Your task to perform on an android device: clear all cookies in the chrome app Image 0: 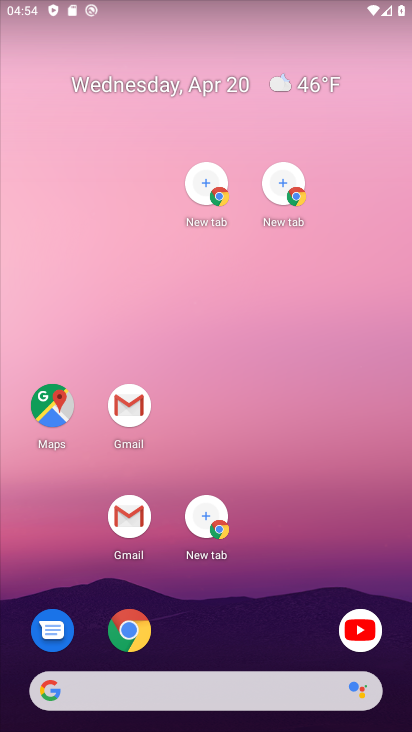
Step 0: drag from (139, 609) to (99, 163)
Your task to perform on an android device: clear all cookies in the chrome app Image 1: 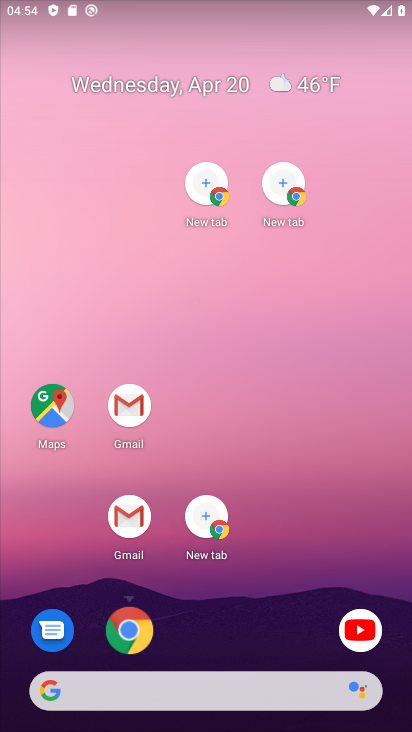
Step 1: drag from (223, 380) to (210, 90)
Your task to perform on an android device: clear all cookies in the chrome app Image 2: 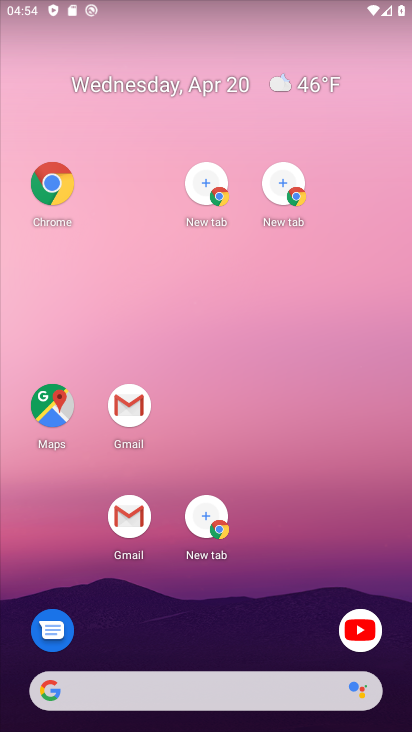
Step 2: drag from (250, 677) to (120, 26)
Your task to perform on an android device: clear all cookies in the chrome app Image 3: 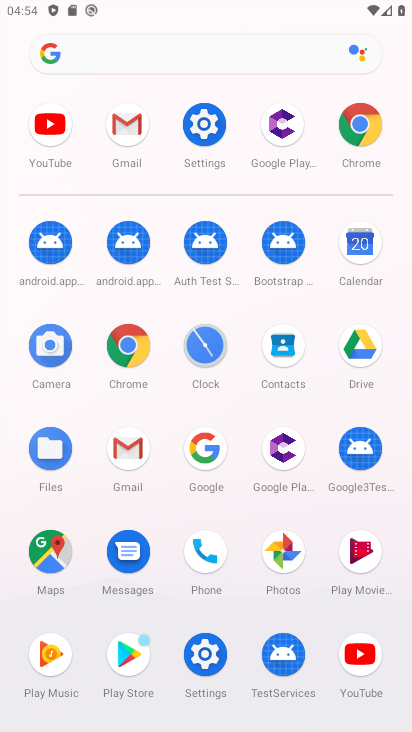
Step 3: drag from (244, 580) to (109, 249)
Your task to perform on an android device: clear all cookies in the chrome app Image 4: 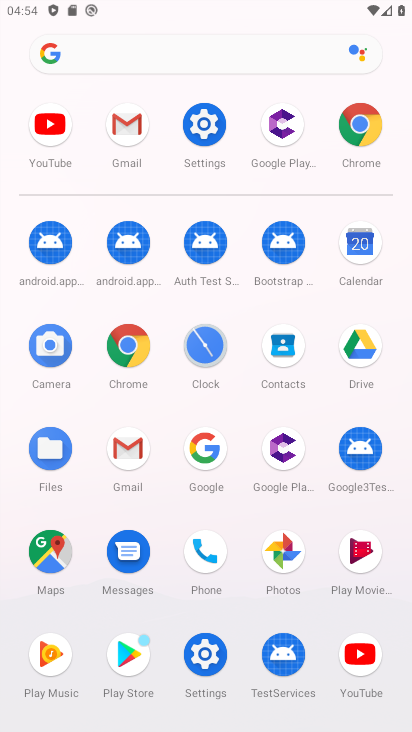
Step 4: click (136, 119)
Your task to perform on an android device: clear all cookies in the chrome app Image 5: 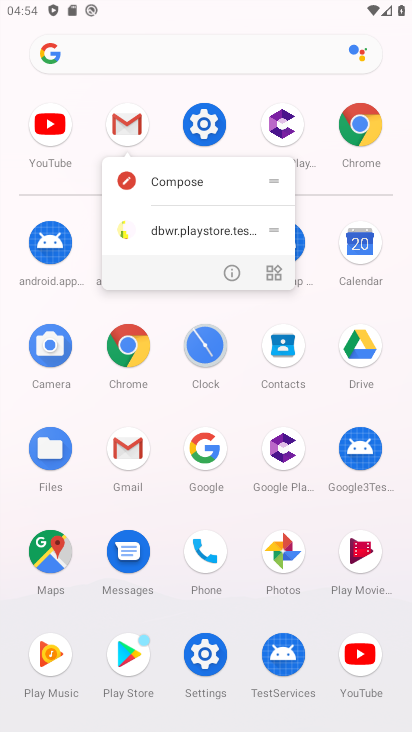
Step 5: click (124, 113)
Your task to perform on an android device: clear all cookies in the chrome app Image 6: 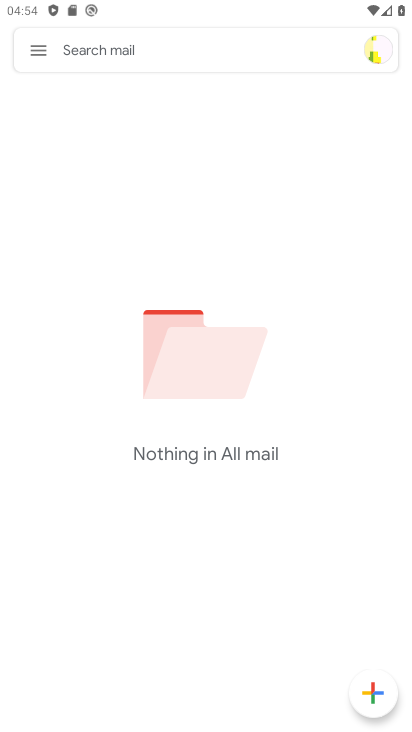
Step 6: click (44, 53)
Your task to perform on an android device: clear all cookies in the chrome app Image 7: 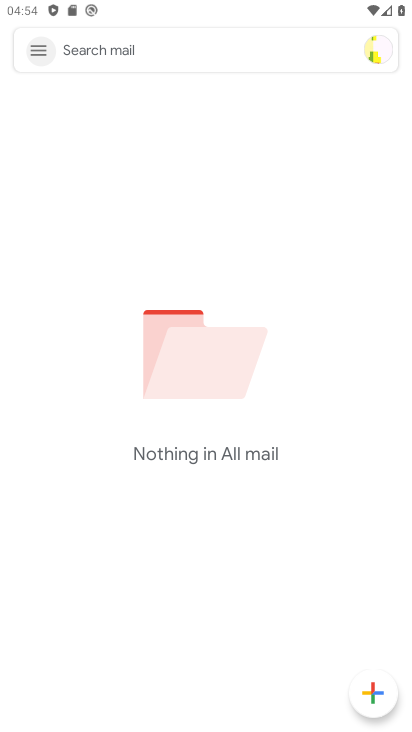
Step 7: drag from (44, 53) to (38, 102)
Your task to perform on an android device: clear all cookies in the chrome app Image 8: 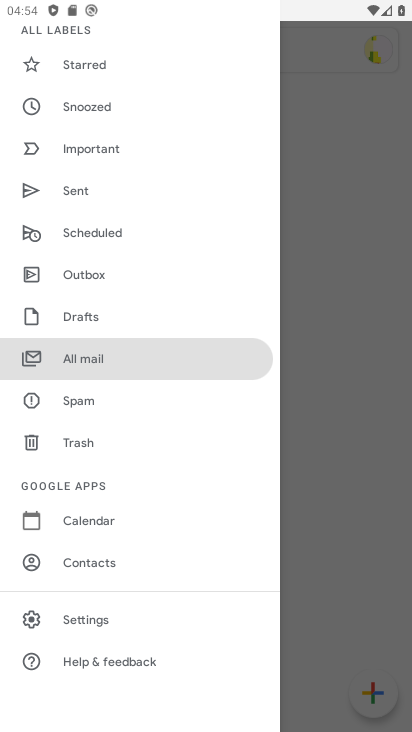
Step 8: drag from (313, 590) to (333, 437)
Your task to perform on an android device: clear all cookies in the chrome app Image 9: 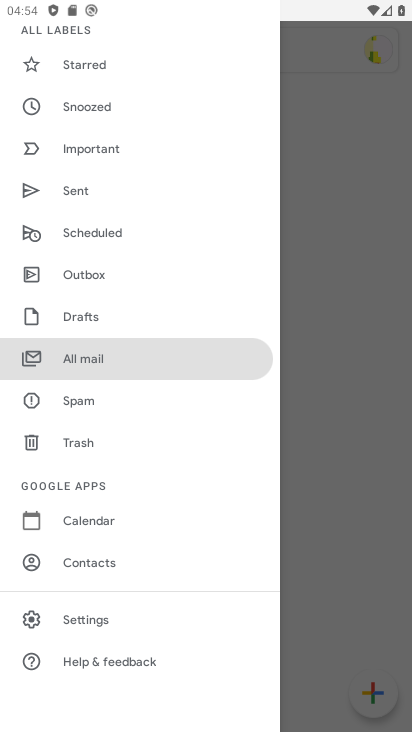
Step 9: press home button
Your task to perform on an android device: clear all cookies in the chrome app Image 10: 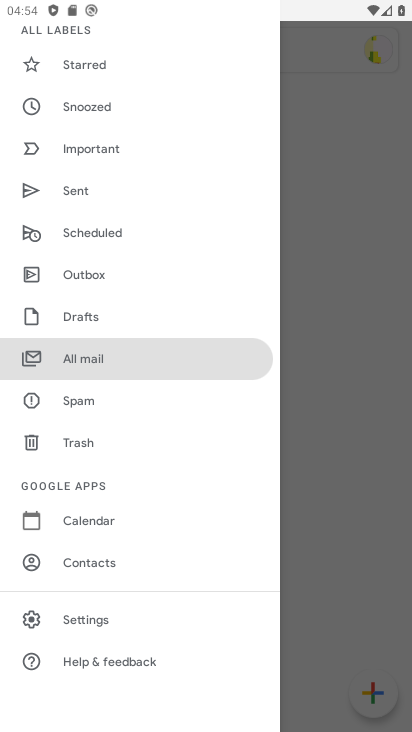
Step 10: press home button
Your task to perform on an android device: clear all cookies in the chrome app Image 11: 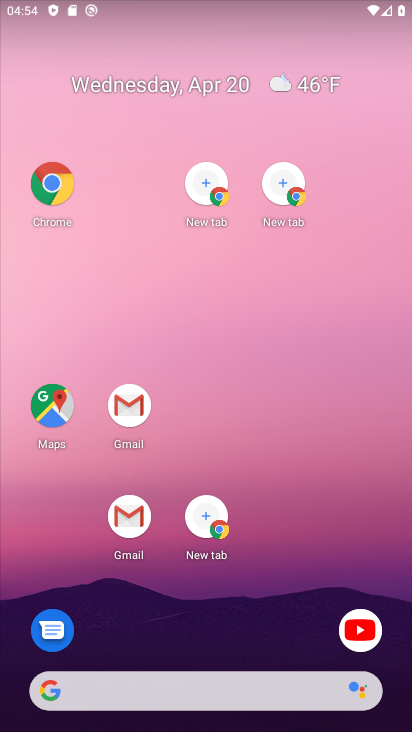
Step 11: drag from (287, 633) to (160, 7)
Your task to perform on an android device: clear all cookies in the chrome app Image 12: 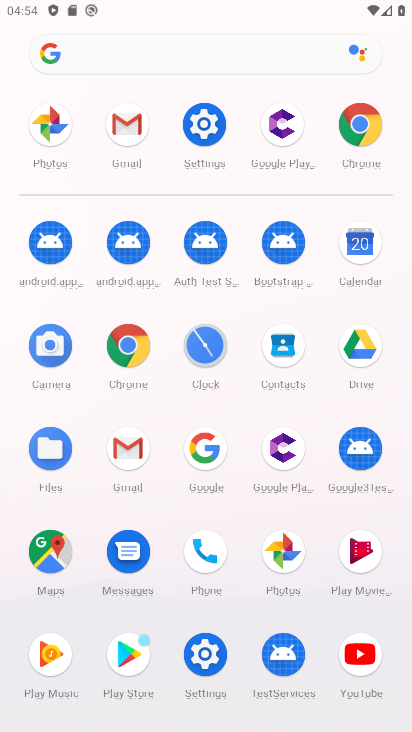
Step 12: click (354, 123)
Your task to perform on an android device: clear all cookies in the chrome app Image 13: 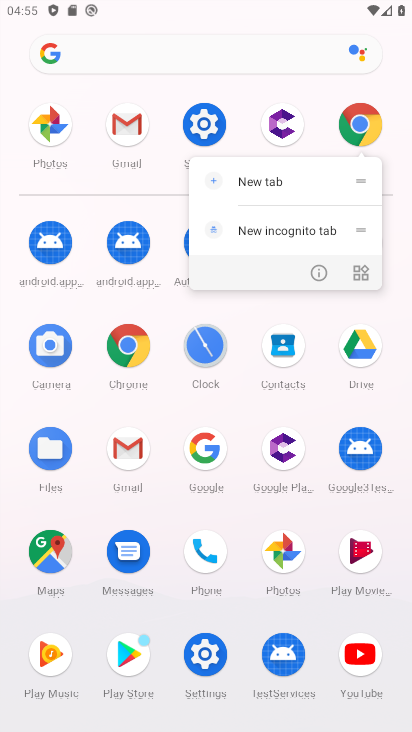
Step 13: click (371, 147)
Your task to perform on an android device: clear all cookies in the chrome app Image 14: 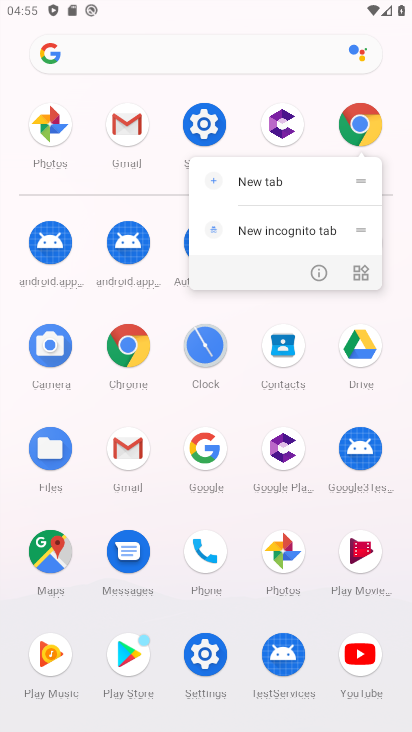
Step 14: click (347, 109)
Your task to perform on an android device: clear all cookies in the chrome app Image 15: 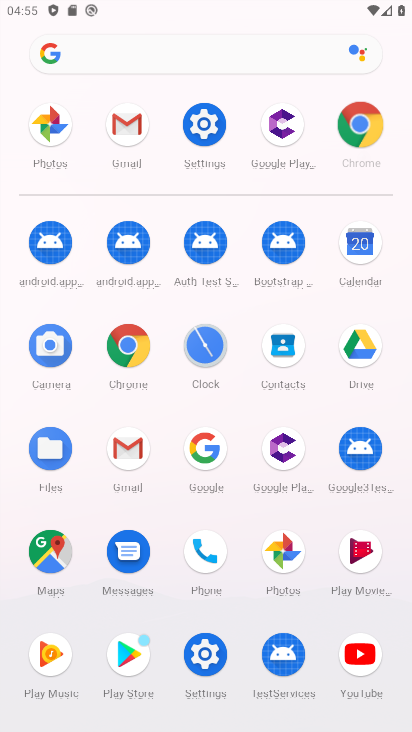
Step 15: click (352, 109)
Your task to perform on an android device: clear all cookies in the chrome app Image 16: 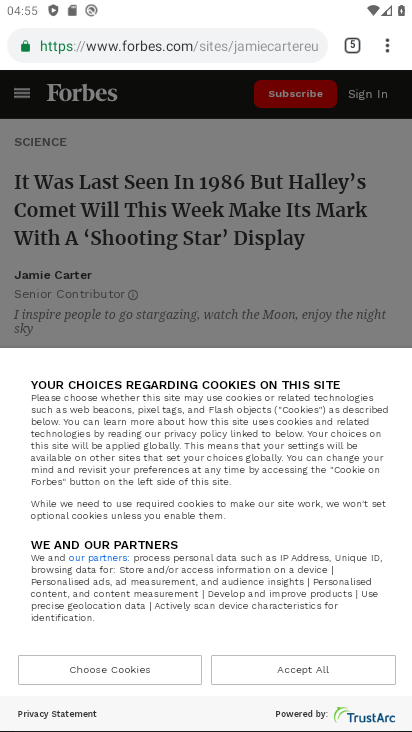
Step 16: drag from (385, 44) to (226, 592)
Your task to perform on an android device: clear all cookies in the chrome app Image 17: 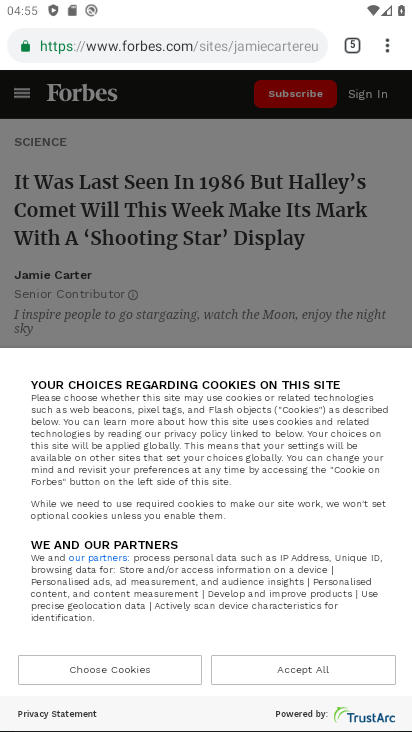
Step 17: click (226, 592)
Your task to perform on an android device: clear all cookies in the chrome app Image 18: 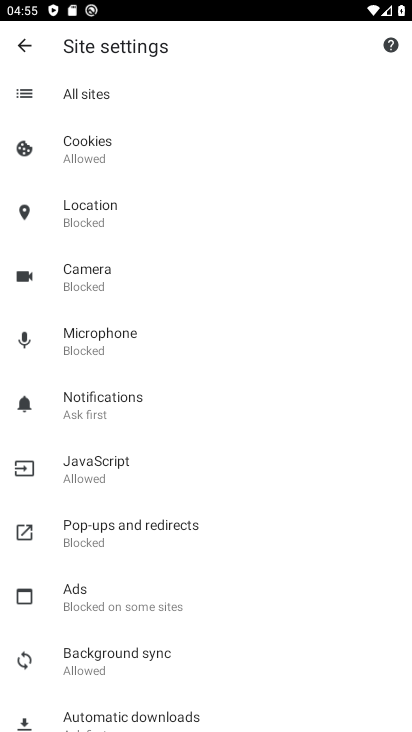
Step 18: click (84, 143)
Your task to perform on an android device: clear all cookies in the chrome app Image 19: 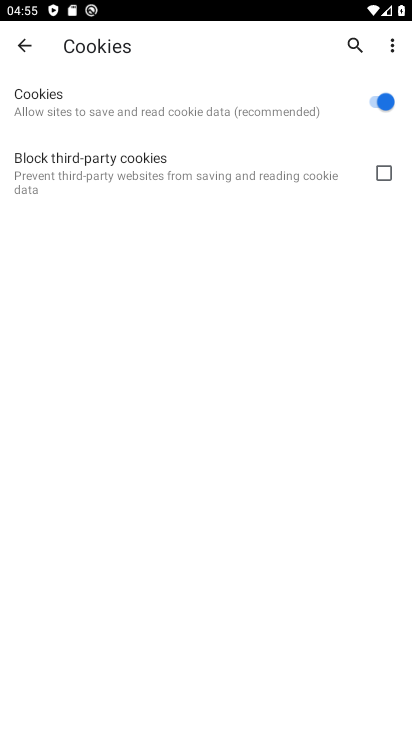
Step 19: click (374, 113)
Your task to perform on an android device: clear all cookies in the chrome app Image 20: 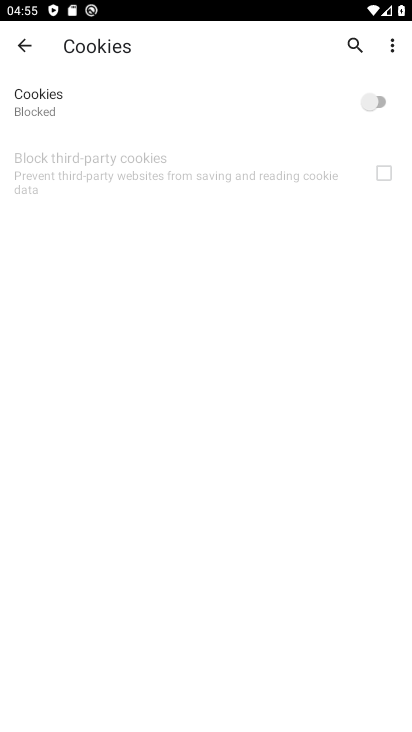
Step 20: task complete